Your task to perform on an android device: Go to battery settings Image 0: 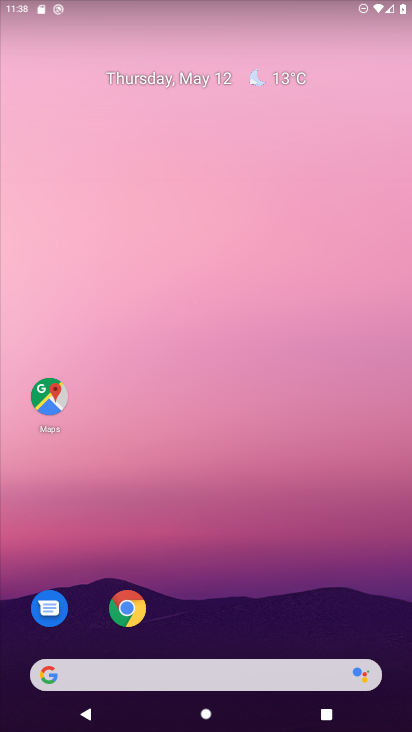
Step 0: drag from (231, 614) to (243, 115)
Your task to perform on an android device: Go to battery settings Image 1: 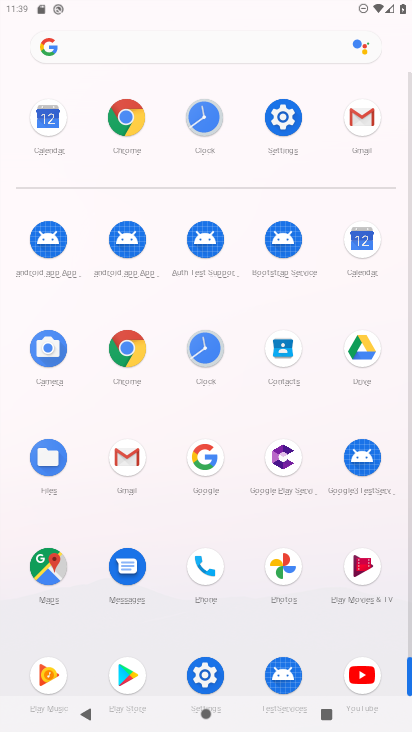
Step 1: click (283, 109)
Your task to perform on an android device: Go to battery settings Image 2: 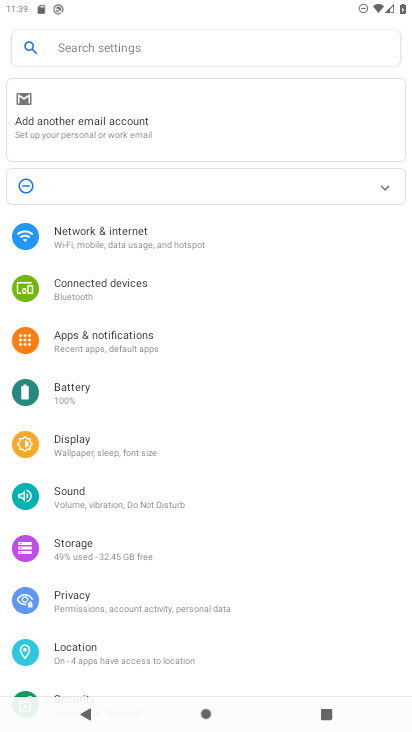
Step 2: click (110, 392)
Your task to perform on an android device: Go to battery settings Image 3: 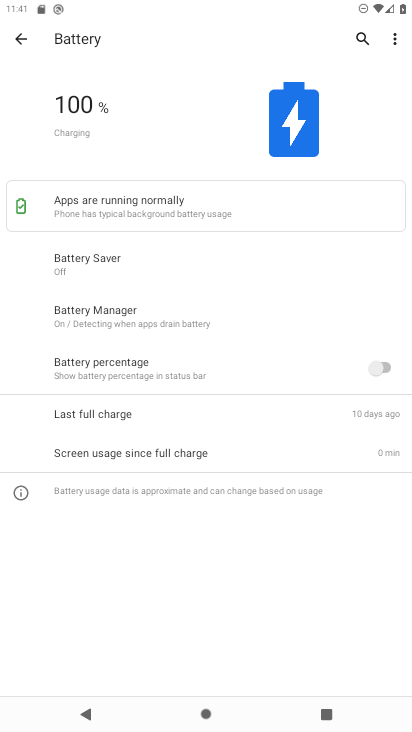
Step 3: task complete